Your task to perform on an android device: Go to Google Image 0: 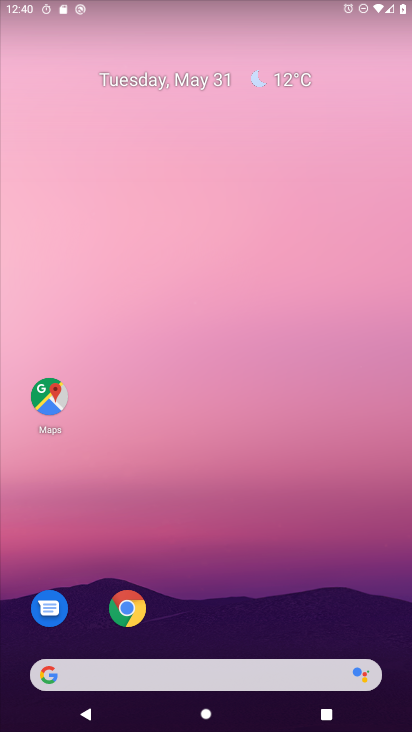
Step 0: drag from (237, 644) to (258, 18)
Your task to perform on an android device: Go to Google Image 1: 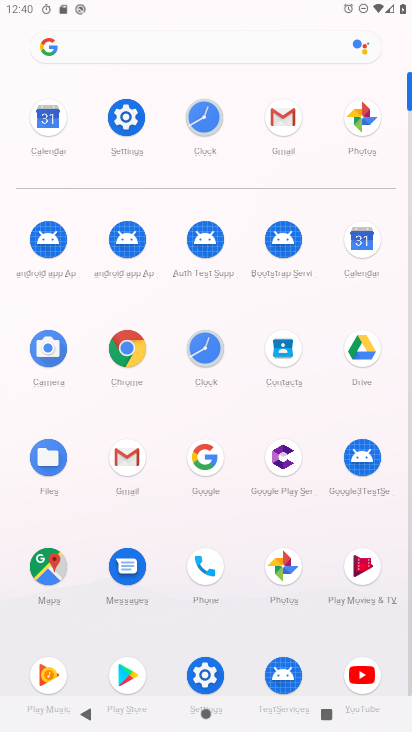
Step 1: click (205, 466)
Your task to perform on an android device: Go to Google Image 2: 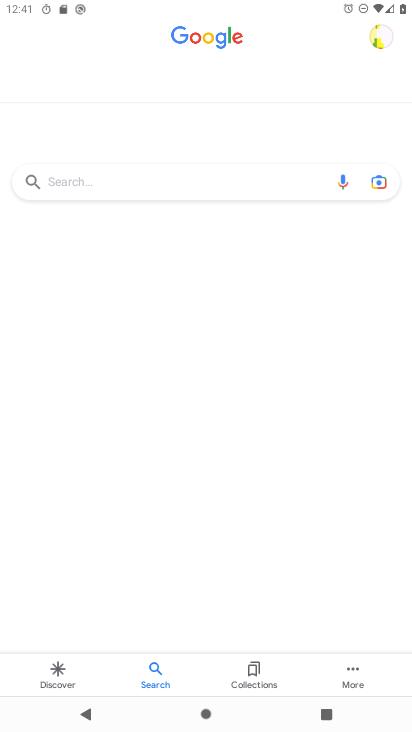
Step 2: task complete